Your task to perform on an android device: Open Youtube and go to the subscriptions tab Image 0: 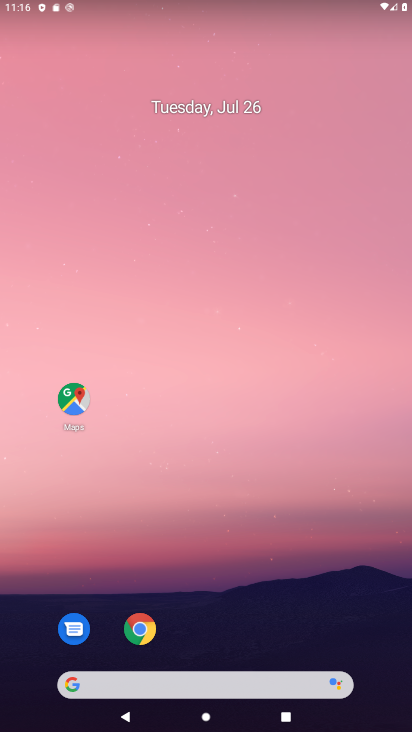
Step 0: drag from (186, 696) to (180, 209)
Your task to perform on an android device: Open Youtube and go to the subscriptions tab Image 1: 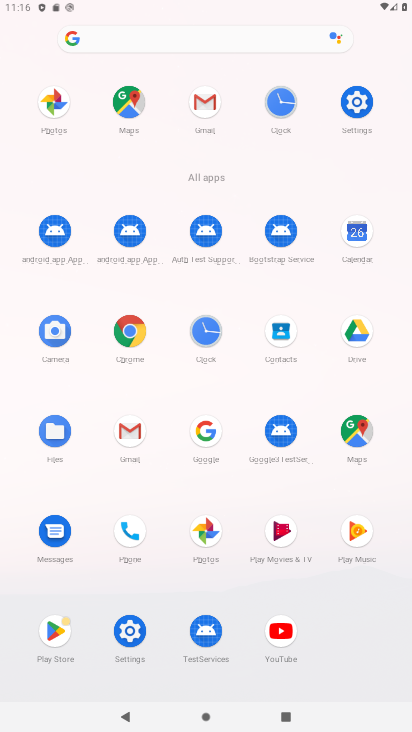
Step 1: click (286, 638)
Your task to perform on an android device: Open Youtube and go to the subscriptions tab Image 2: 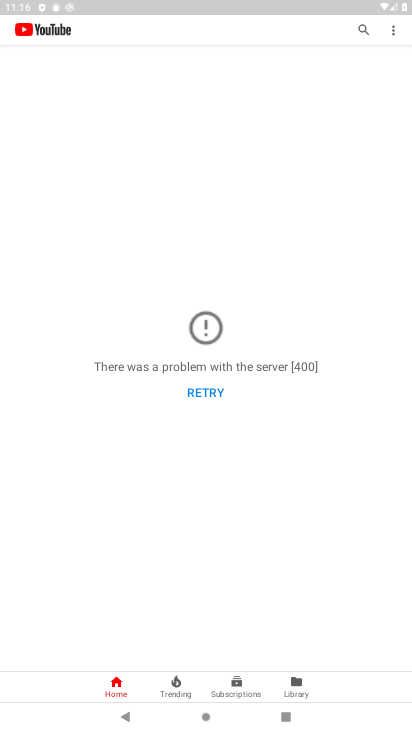
Step 2: click (242, 681)
Your task to perform on an android device: Open Youtube and go to the subscriptions tab Image 3: 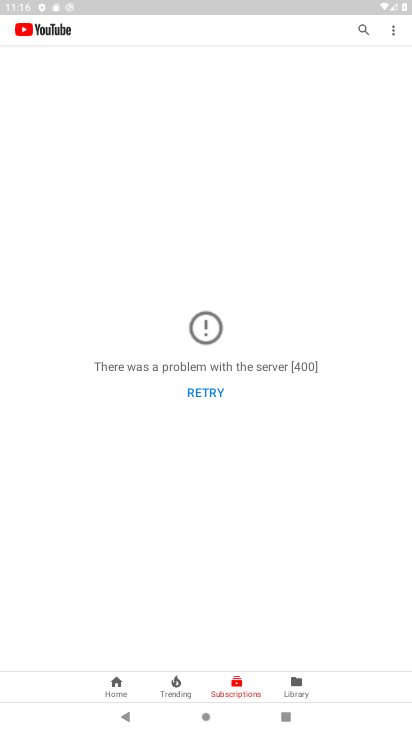
Step 3: task complete